Your task to perform on an android device: toggle data saver in the chrome app Image 0: 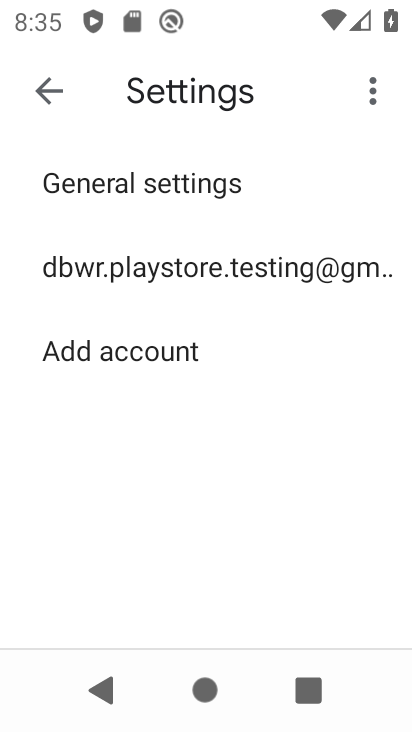
Step 0: click (235, 270)
Your task to perform on an android device: toggle data saver in the chrome app Image 1: 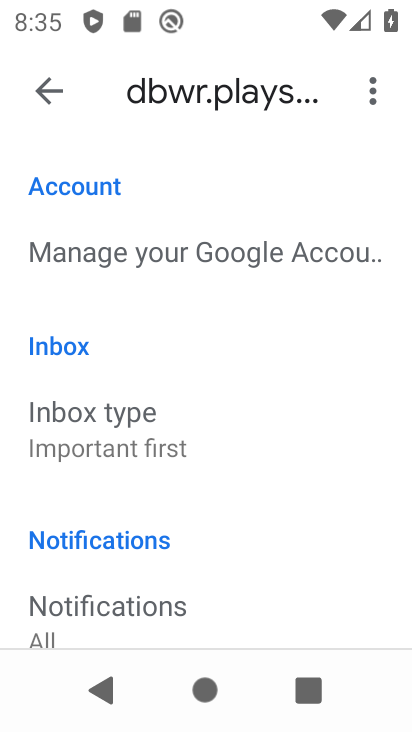
Step 1: drag from (221, 566) to (256, 282)
Your task to perform on an android device: toggle data saver in the chrome app Image 2: 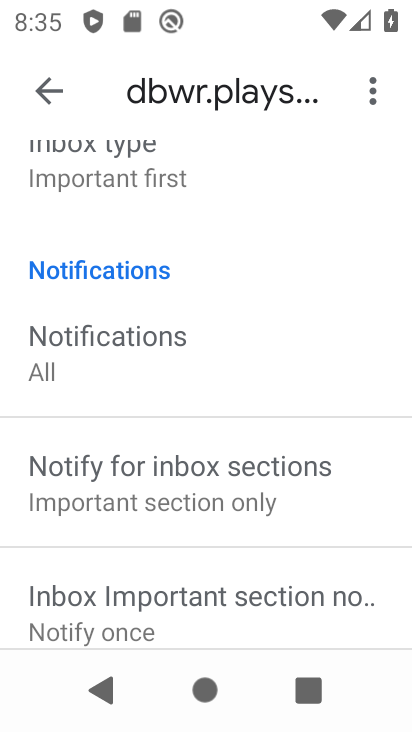
Step 2: press home button
Your task to perform on an android device: toggle data saver in the chrome app Image 3: 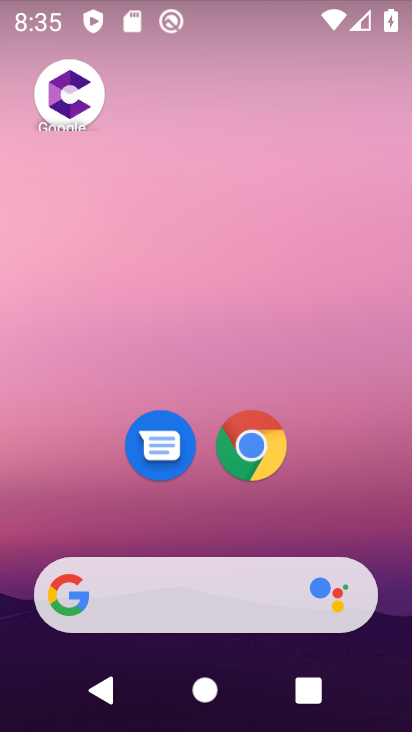
Step 3: click (263, 479)
Your task to perform on an android device: toggle data saver in the chrome app Image 4: 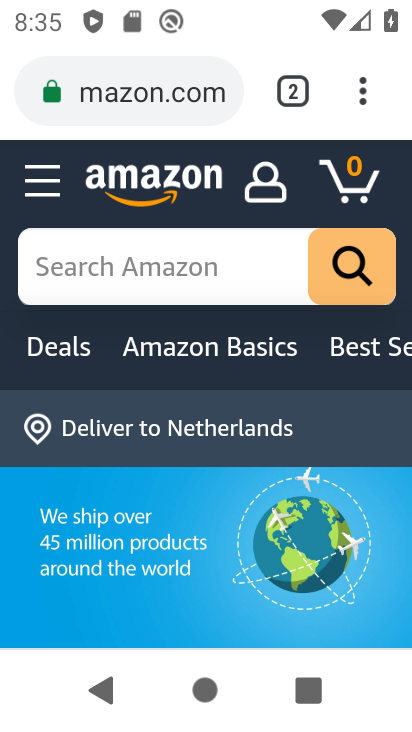
Step 4: click (368, 97)
Your task to perform on an android device: toggle data saver in the chrome app Image 5: 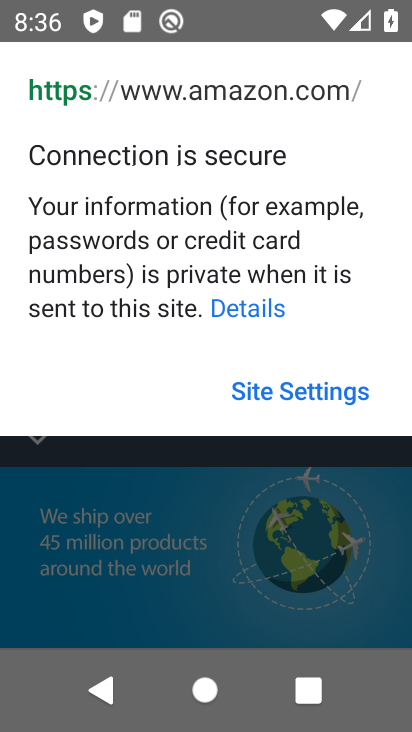
Step 5: click (207, 463)
Your task to perform on an android device: toggle data saver in the chrome app Image 6: 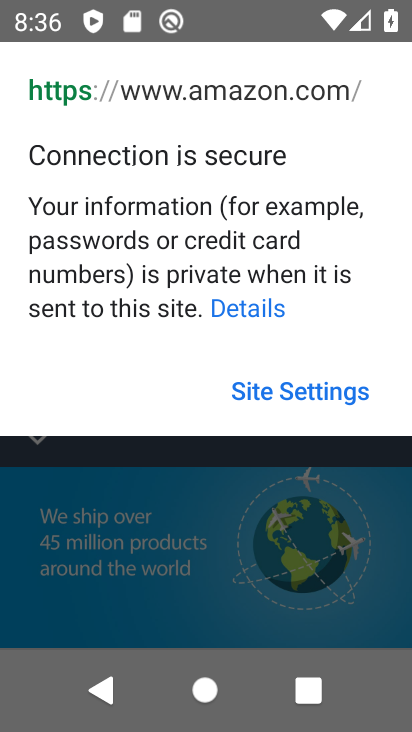
Step 6: click (195, 478)
Your task to perform on an android device: toggle data saver in the chrome app Image 7: 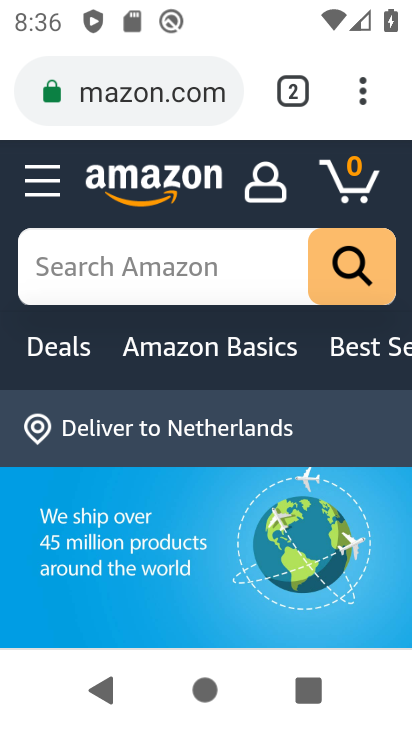
Step 7: click (363, 102)
Your task to perform on an android device: toggle data saver in the chrome app Image 8: 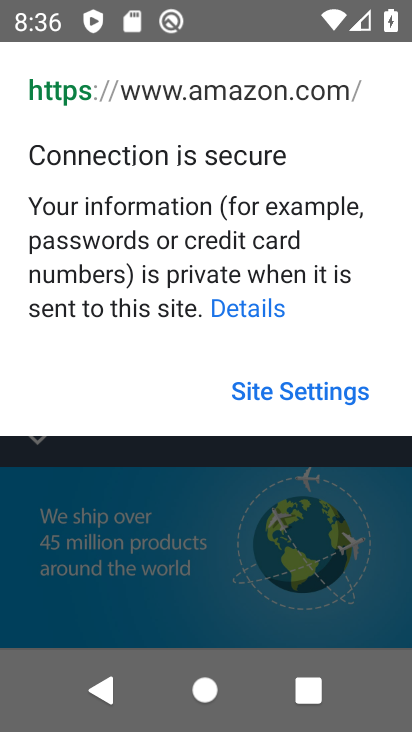
Step 8: click (156, 462)
Your task to perform on an android device: toggle data saver in the chrome app Image 9: 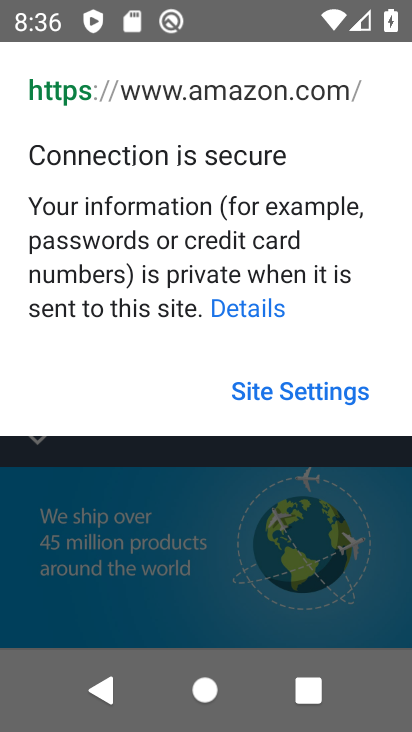
Step 9: click (168, 452)
Your task to perform on an android device: toggle data saver in the chrome app Image 10: 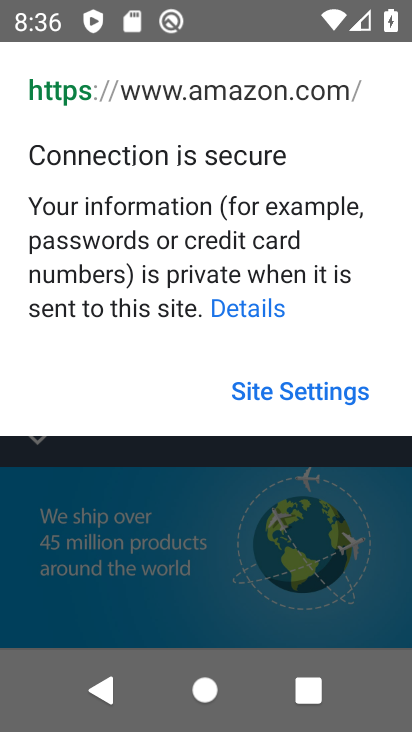
Step 10: click (174, 468)
Your task to perform on an android device: toggle data saver in the chrome app Image 11: 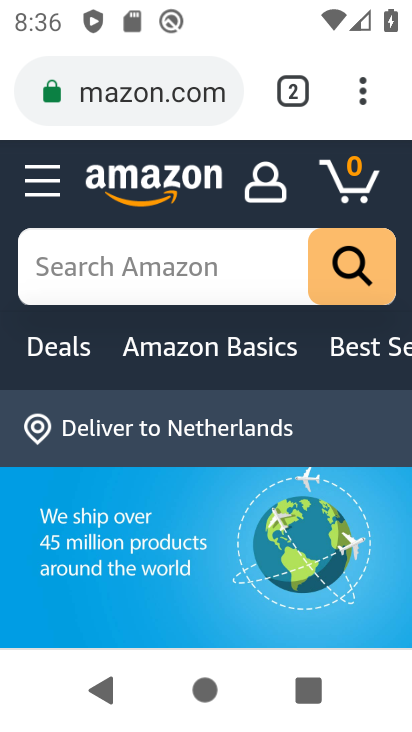
Step 11: click (362, 90)
Your task to perform on an android device: toggle data saver in the chrome app Image 12: 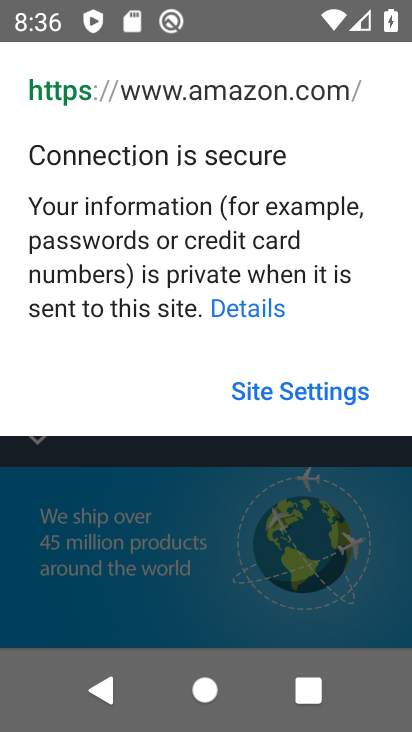
Step 12: click (207, 468)
Your task to perform on an android device: toggle data saver in the chrome app Image 13: 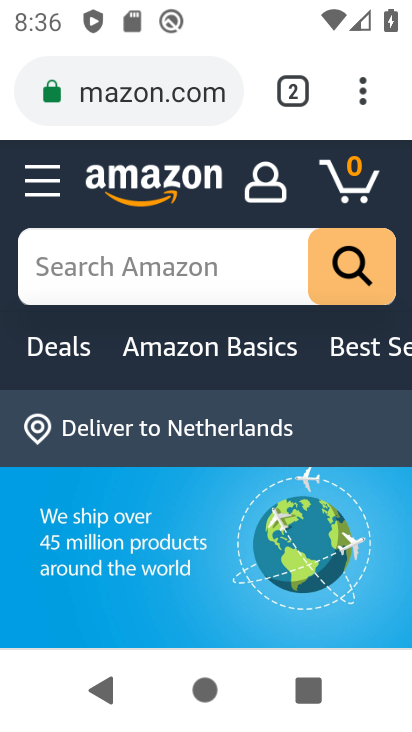
Step 13: click (365, 92)
Your task to perform on an android device: toggle data saver in the chrome app Image 14: 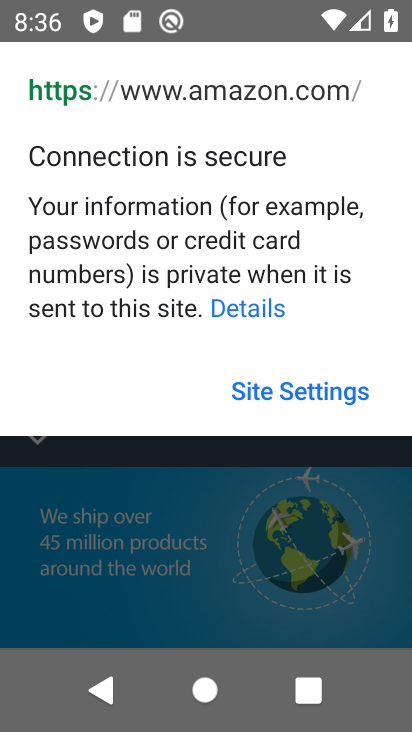
Step 14: click (221, 481)
Your task to perform on an android device: toggle data saver in the chrome app Image 15: 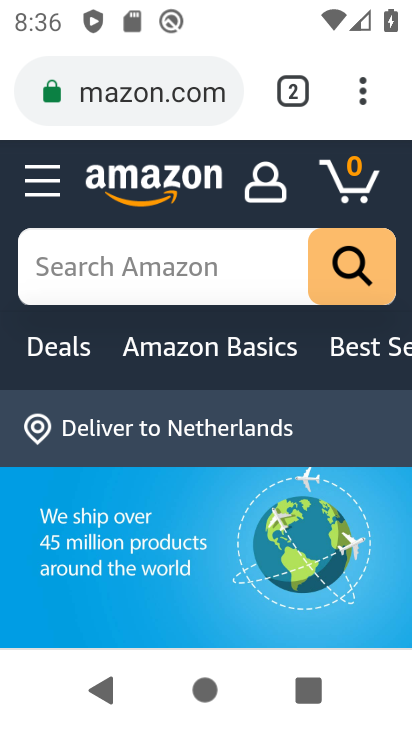
Step 15: click (367, 95)
Your task to perform on an android device: toggle data saver in the chrome app Image 16: 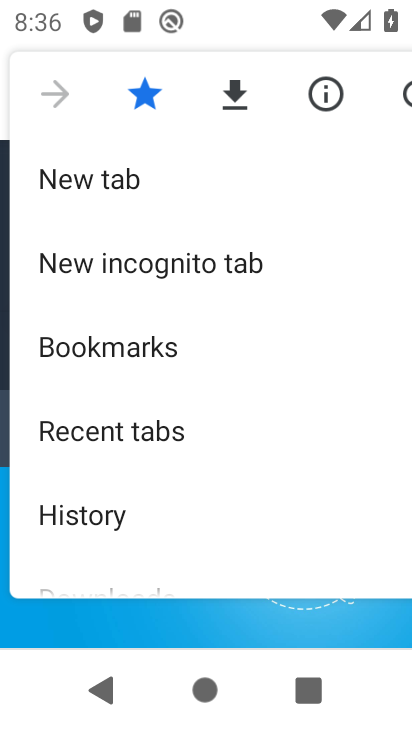
Step 16: drag from (206, 488) to (208, 220)
Your task to perform on an android device: toggle data saver in the chrome app Image 17: 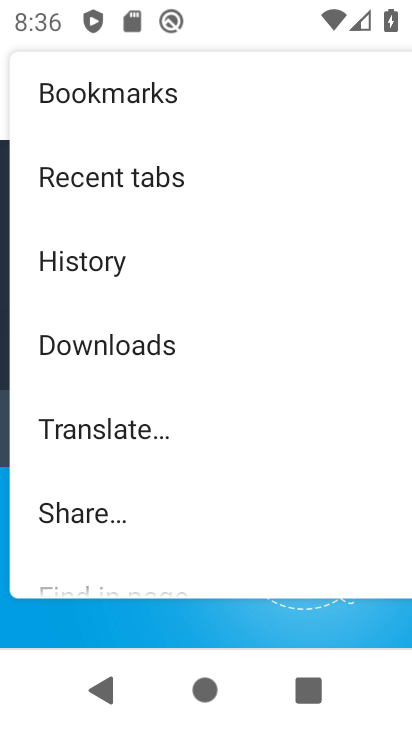
Step 17: drag from (177, 471) to (220, 239)
Your task to perform on an android device: toggle data saver in the chrome app Image 18: 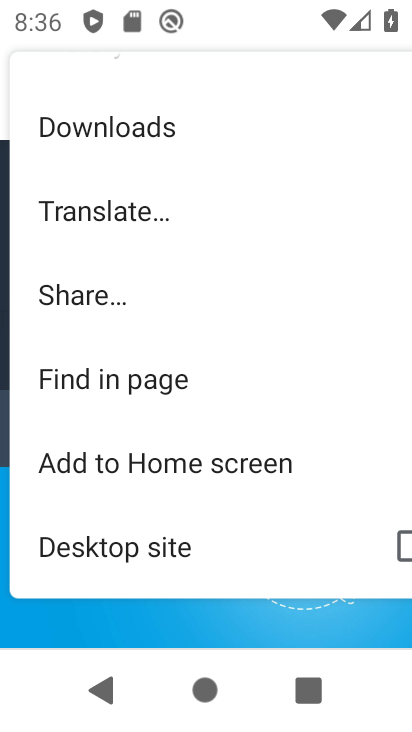
Step 18: drag from (189, 524) to (238, 239)
Your task to perform on an android device: toggle data saver in the chrome app Image 19: 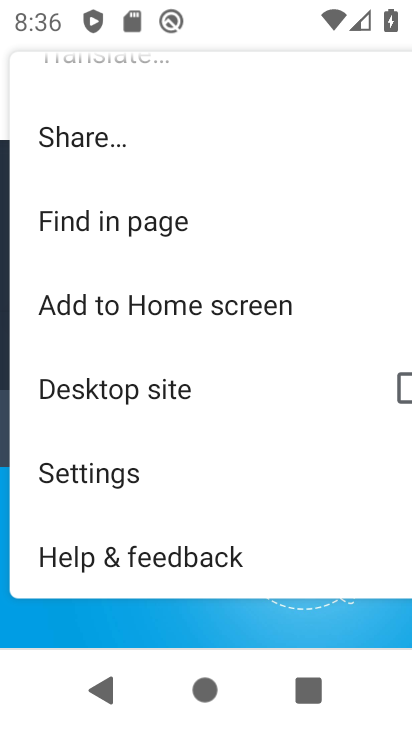
Step 19: click (119, 478)
Your task to perform on an android device: toggle data saver in the chrome app Image 20: 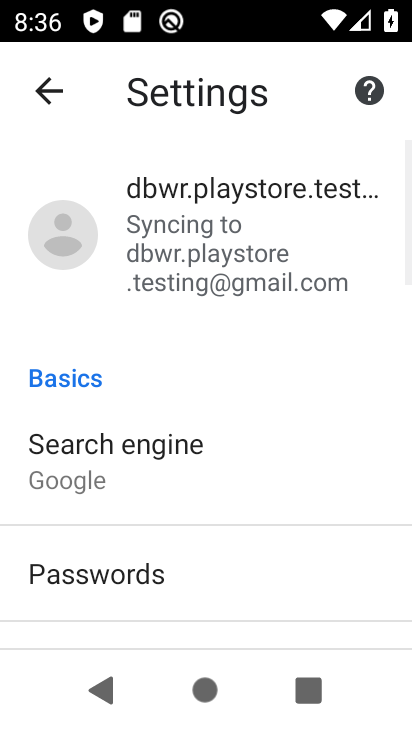
Step 20: drag from (176, 560) to (257, 271)
Your task to perform on an android device: toggle data saver in the chrome app Image 21: 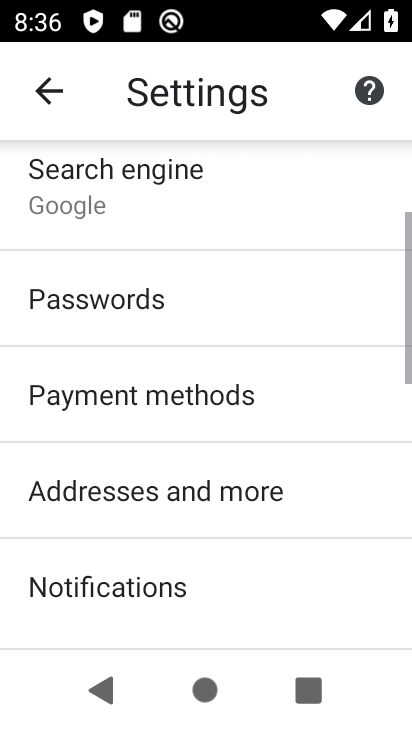
Step 21: drag from (201, 561) to (290, 261)
Your task to perform on an android device: toggle data saver in the chrome app Image 22: 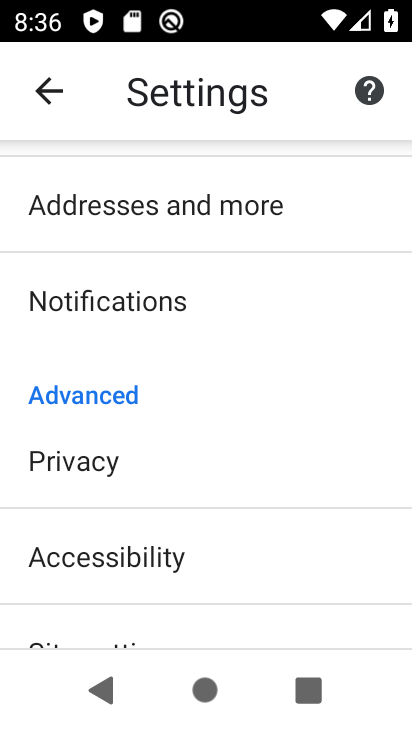
Step 22: drag from (204, 554) to (224, 249)
Your task to perform on an android device: toggle data saver in the chrome app Image 23: 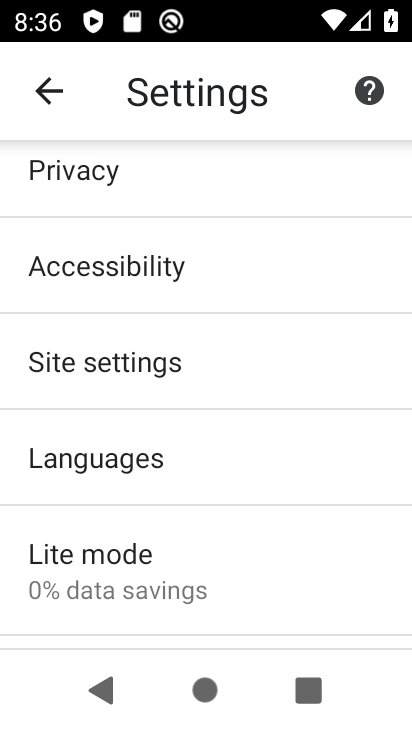
Step 23: click (124, 570)
Your task to perform on an android device: toggle data saver in the chrome app Image 24: 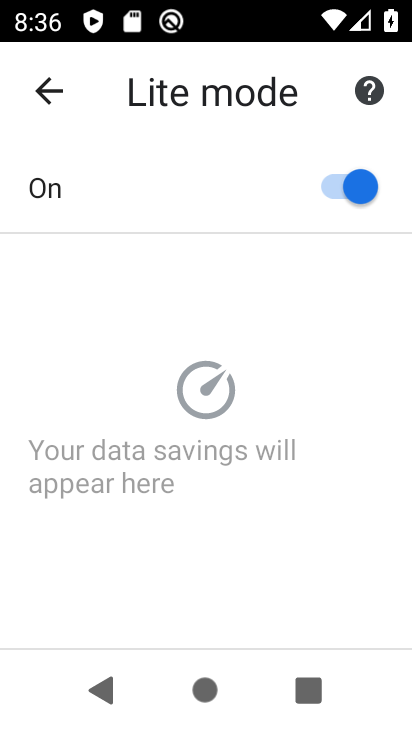
Step 24: click (335, 189)
Your task to perform on an android device: toggle data saver in the chrome app Image 25: 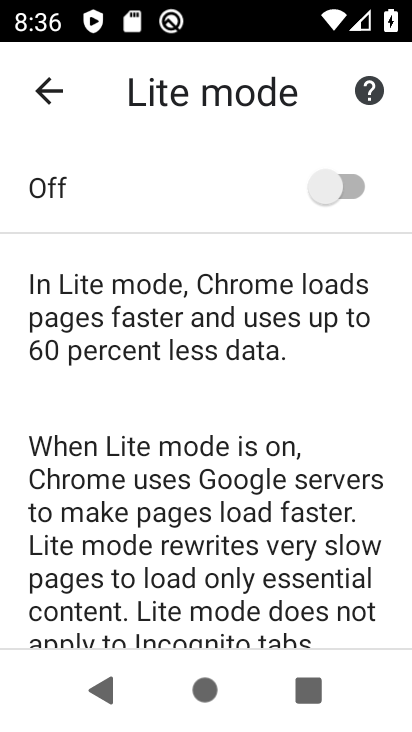
Step 25: task complete